Your task to perform on an android device: Open Android settings Image 0: 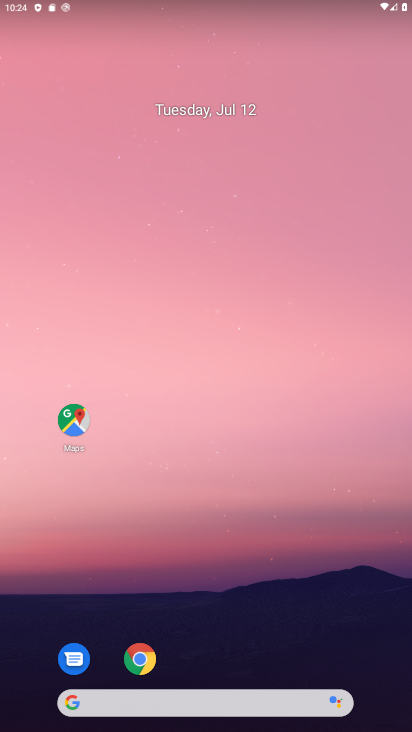
Step 0: drag from (203, 661) to (212, 70)
Your task to perform on an android device: Open Android settings Image 1: 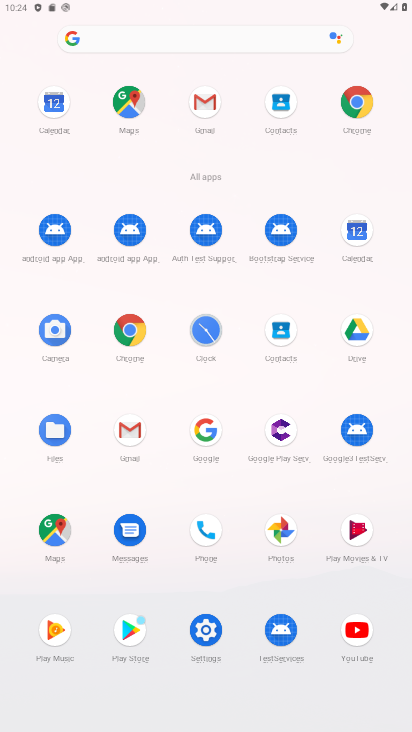
Step 1: click (200, 636)
Your task to perform on an android device: Open Android settings Image 2: 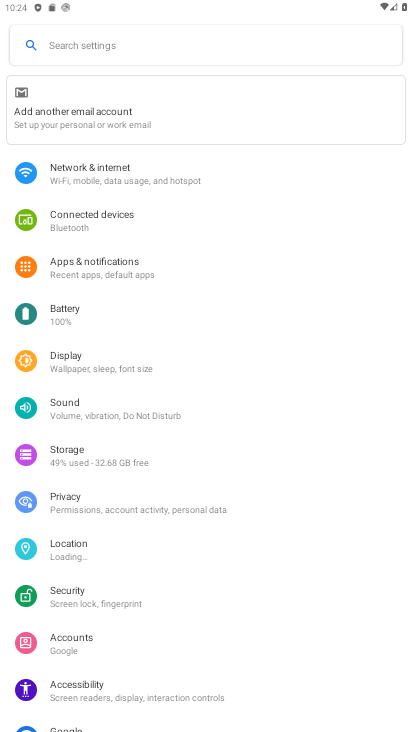
Step 2: drag from (111, 627) to (112, 237)
Your task to perform on an android device: Open Android settings Image 3: 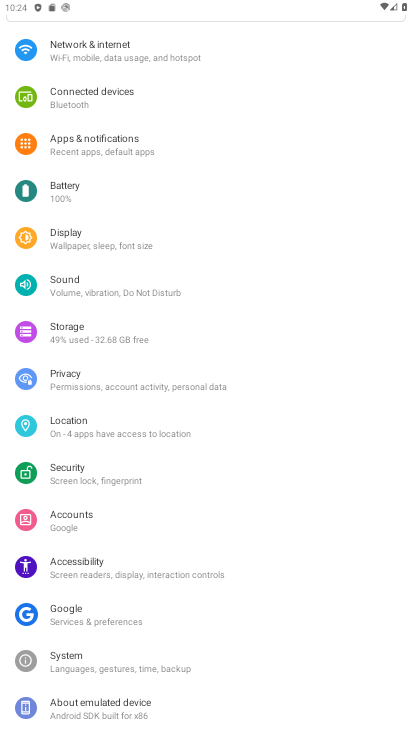
Step 3: click (80, 698)
Your task to perform on an android device: Open Android settings Image 4: 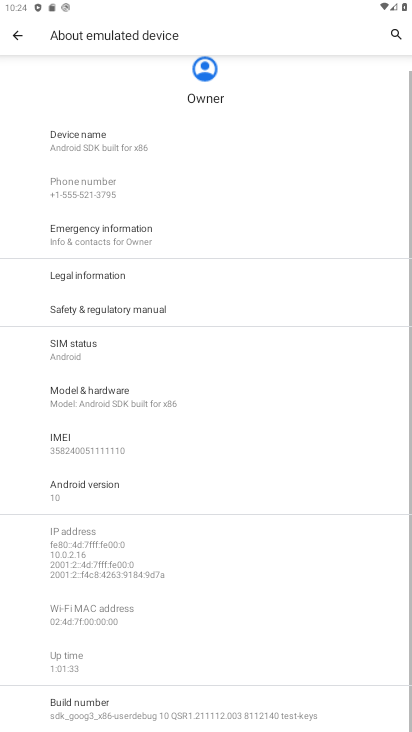
Step 4: click (53, 490)
Your task to perform on an android device: Open Android settings Image 5: 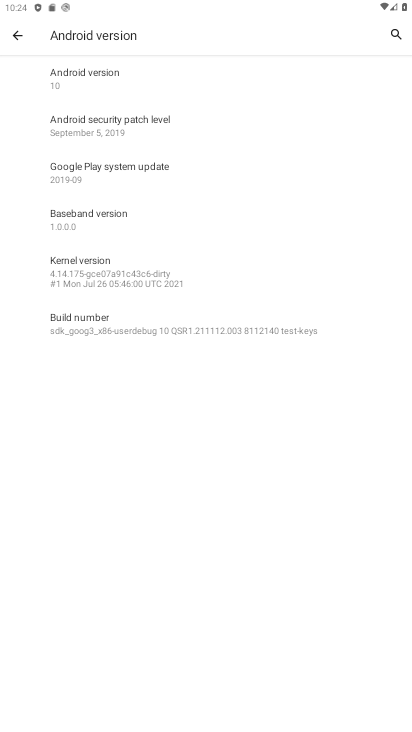
Step 5: task complete